Your task to perform on an android device: Open Wikipedia Image 0: 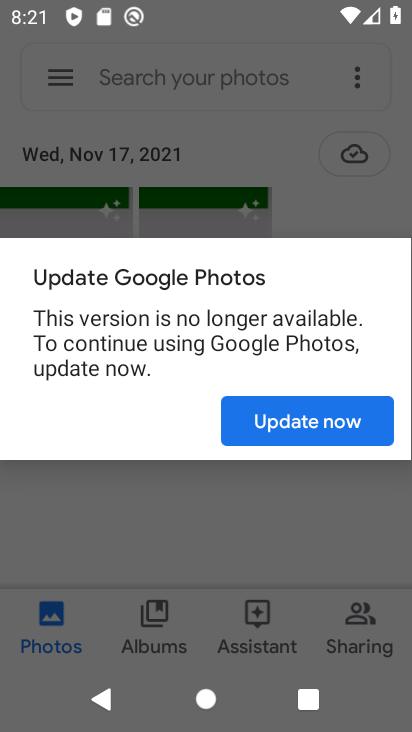
Step 0: press home button
Your task to perform on an android device: Open Wikipedia Image 1: 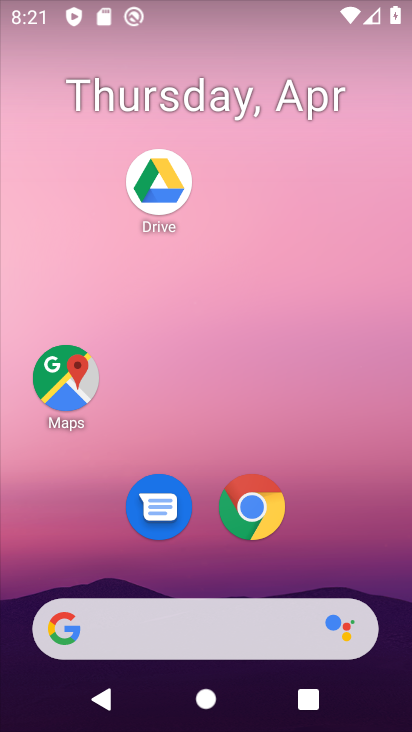
Step 1: drag from (330, 534) to (337, 169)
Your task to perform on an android device: Open Wikipedia Image 2: 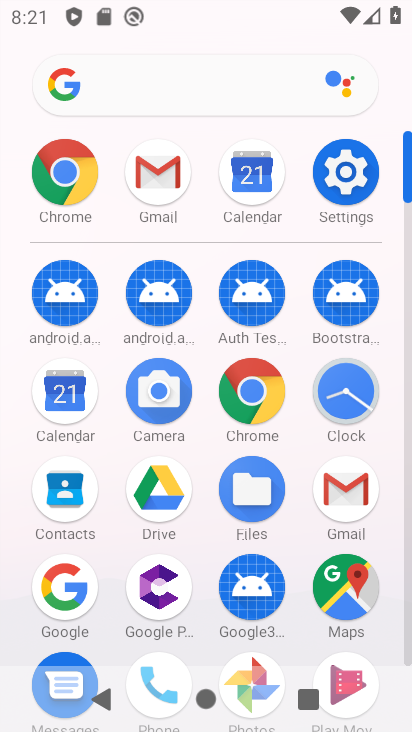
Step 2: click (261, 393)
Your task to perform on an android device: Open Wikipedia Image 3: 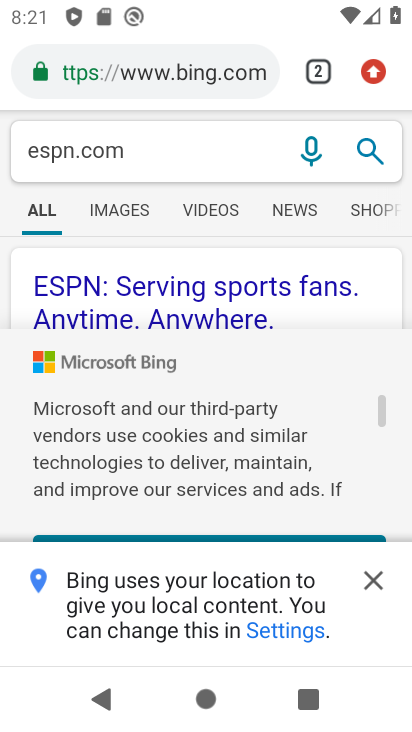
Step 3: press back button
Your task to perform on an android device: Open Wikipedia Image 4: 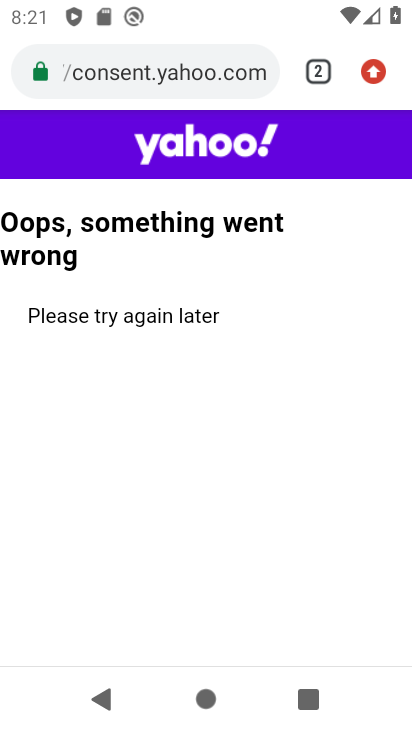
Step 4: press back button
Your task to perform on an android device: Open Wikipedia Image 5: 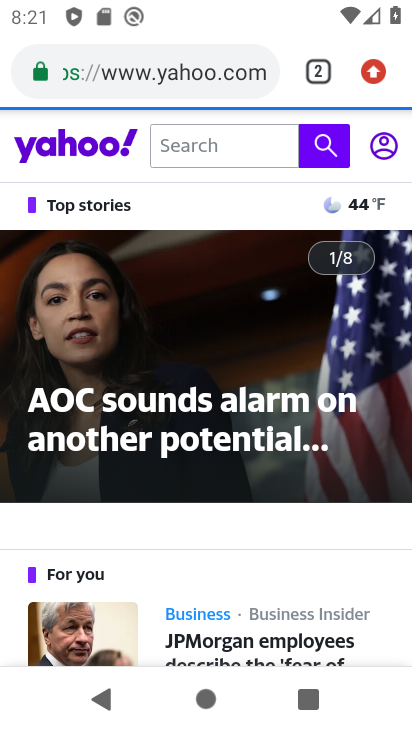
Step 5: press back button
Your task to perform on an android device: Open Wikipedia Image 6: 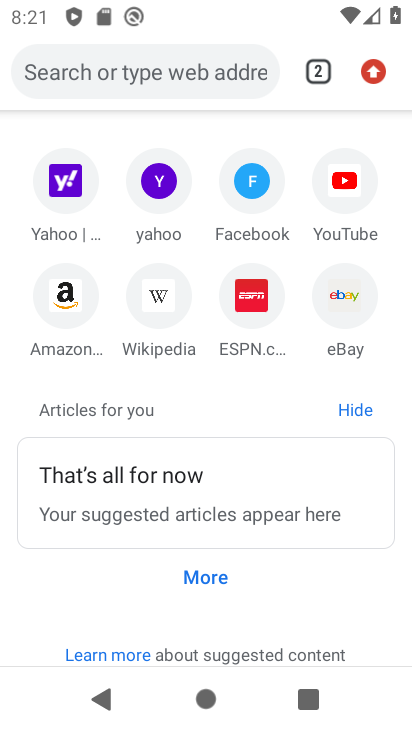
Step 6: click (157, 301)
Your task to perform on an android device: Open Wikipedia Image 7: 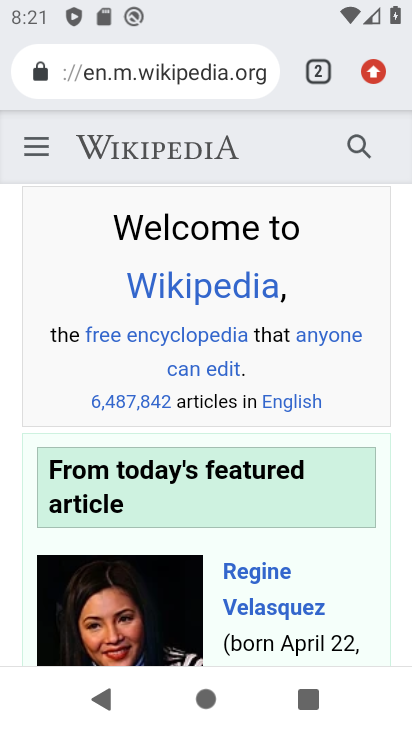
Step 7: task complete